Your task to perform on an android device: Open Youtube and go to "Your channel" Image 0: 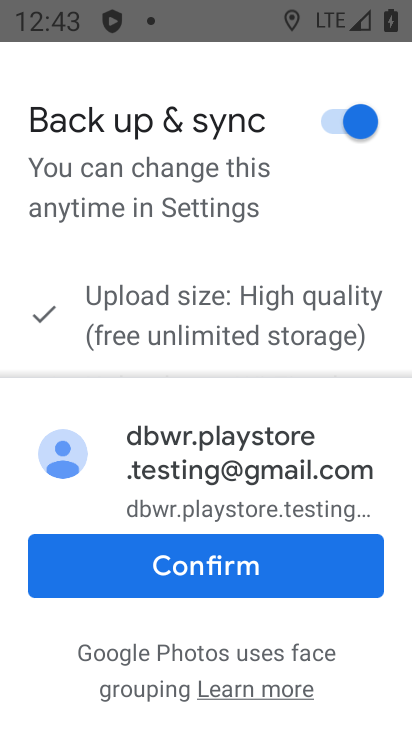
Step 0: press home button
Your task to perform on an android device: Open Youtube and go to "Your channel" Image 1: 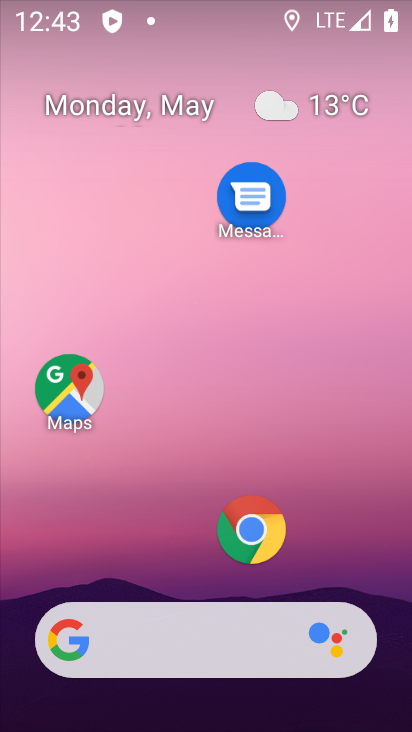
Step 1: drag from (121, 602) to (206, 160)
Your task to perform on an android device: Open Youtube and go to "Your channel" Image 2: 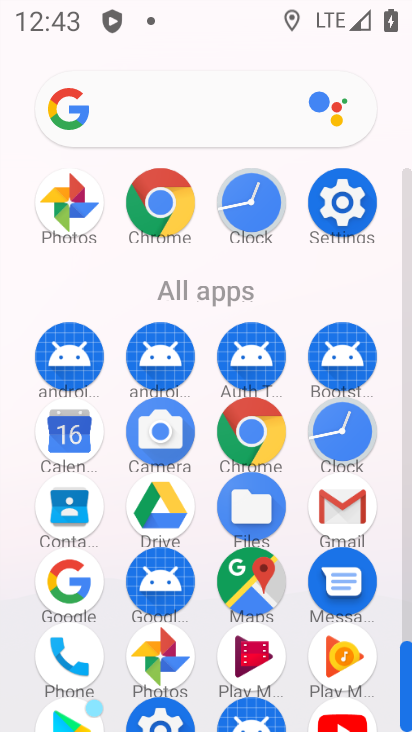
Step 2: drag from (209, 616) to (273, 386)
Your task to perform on an android device: Open Youtube and go to "Your channel" Image 3: 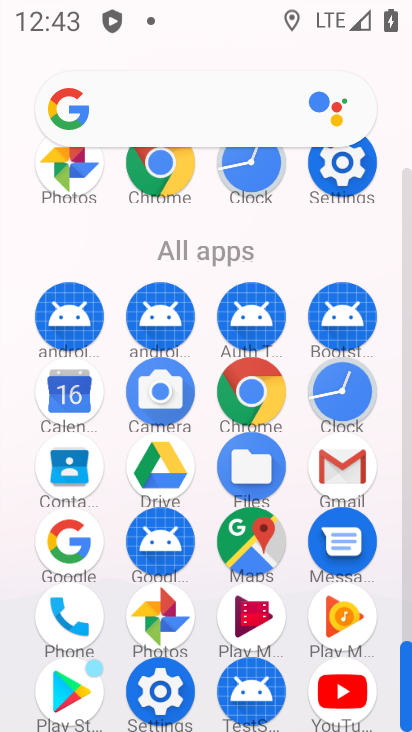
Step 3: click (342, 688)
Your task to perform on an android device: Open Youtube and go to "Your channel" Image 4: 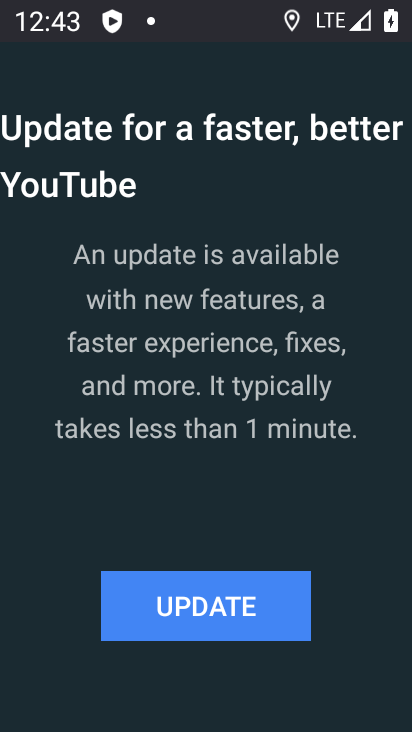
Step 4: click (287, 616)
Your task to perform on an android device: Open Youtube and go to "Your channel" Image 5: 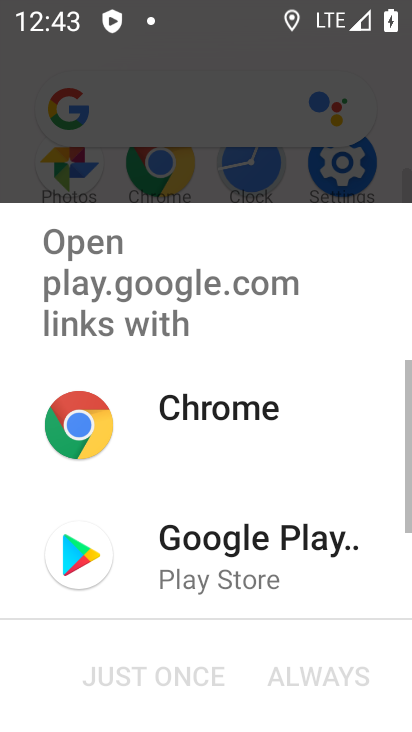
Step 5: click (247, 567)
Your task to perform on an android device: Open Youtube and go to "Your channel" Image 6: 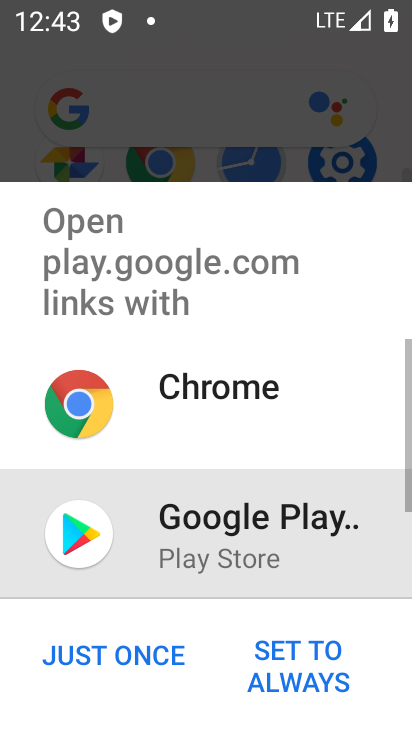
Step 6: click (177, 642)
Your task to perform on an android device: Open Youtube and go to "Your channel" Image 7: 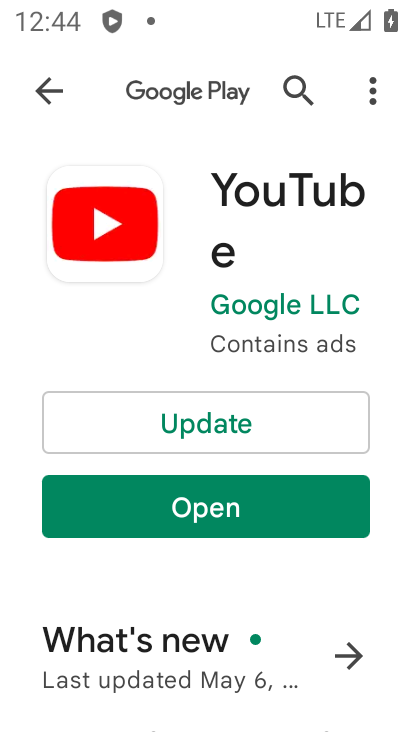
Step 7: click (268, 432)
Your task to perform on an android device: Open Youtube and go to "Your channel" Image 8: 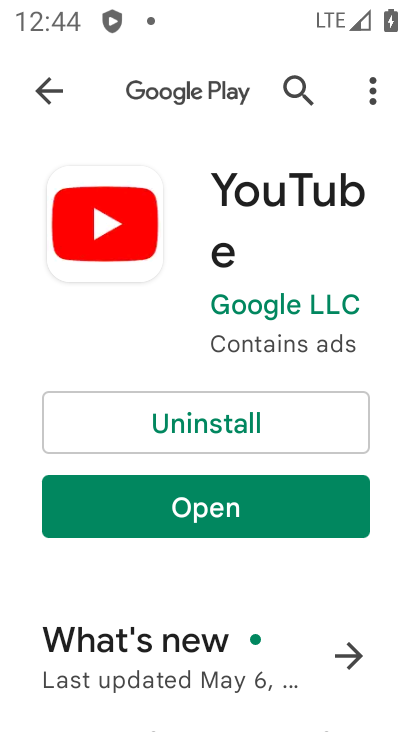
Step 8: click (230, 522)
Your task to perform on an android device: Open Youtube and go to "Your channel" Image 9: 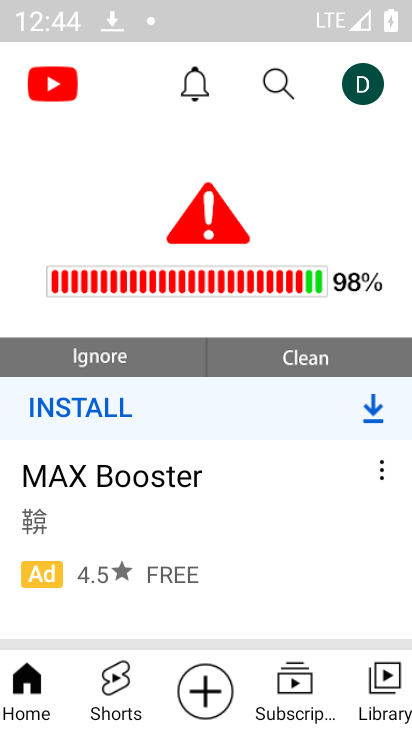
Step 9: click (381, 76)
Your task to perform on an android device: Open Youtube and go to "Your channel" Image 10: 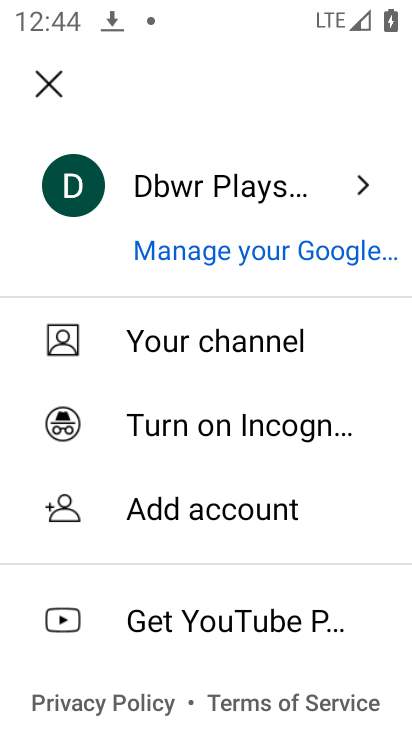
Step 10: click (273, 340)
Your task to perform on an android device: Open Youtube and go to "Your channel" Image 11: 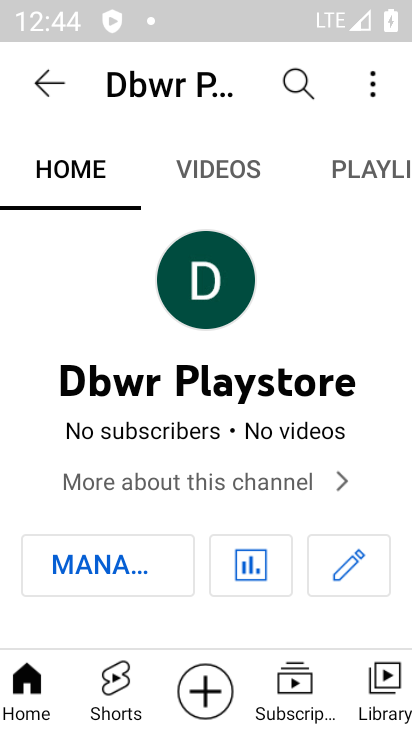
Step 11: task complete